Your task to perform on an android device: change keyboard looks Image 0: 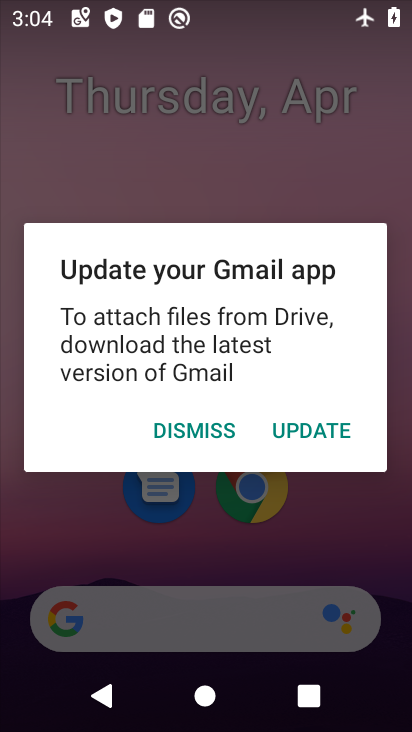
Step 0: click (222, 445)
Your task to perform on an android device: change keyboard looks Image 1: 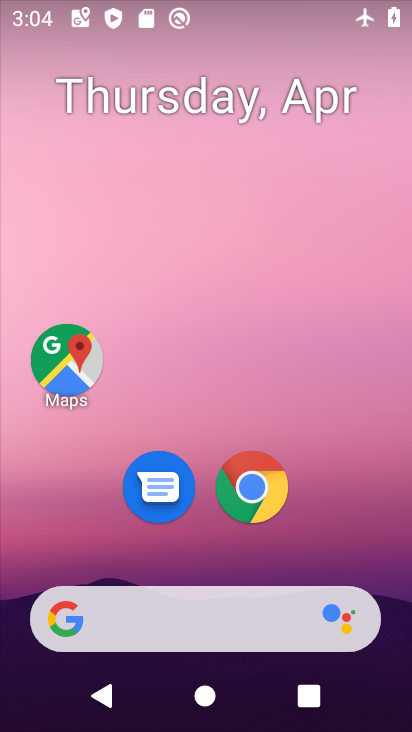
Step 1: drag from (211, 618) to (201, 96)
Your task to perform on an android device: change keyboard looks Image 2: 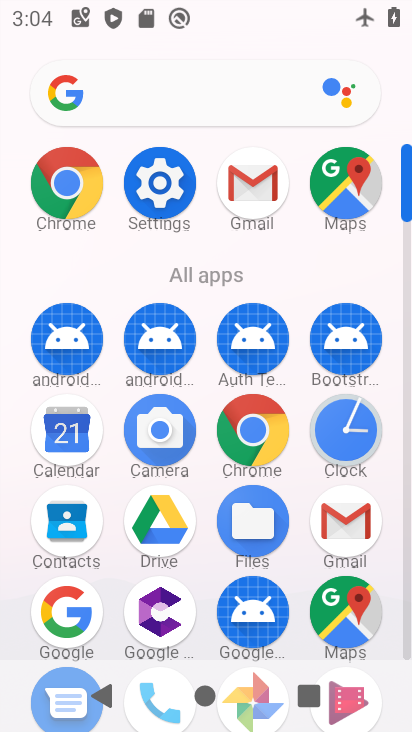
Step 2: click (162, 186)
Your task to perform on an android device: change keyboard looks Image 3: 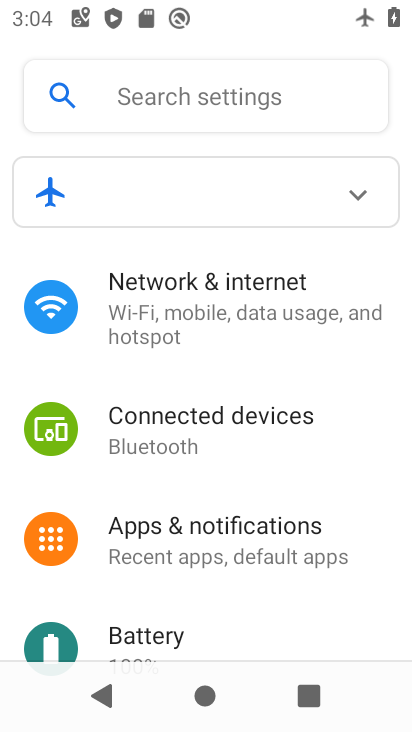
Step 3: drag from (208, 501) to (221, 4)
Your task to perform on an android device: change keyboard looks Image 4: 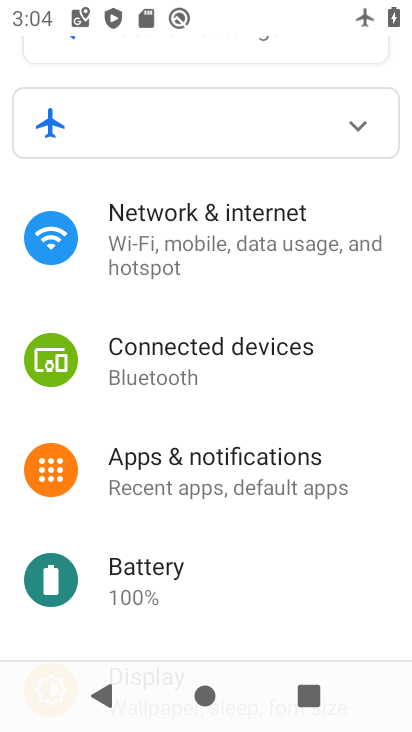
Step 4: drag from (208, 571) to (208, 354)
Your task to perform on an android device: change keyboard looks Image 5: 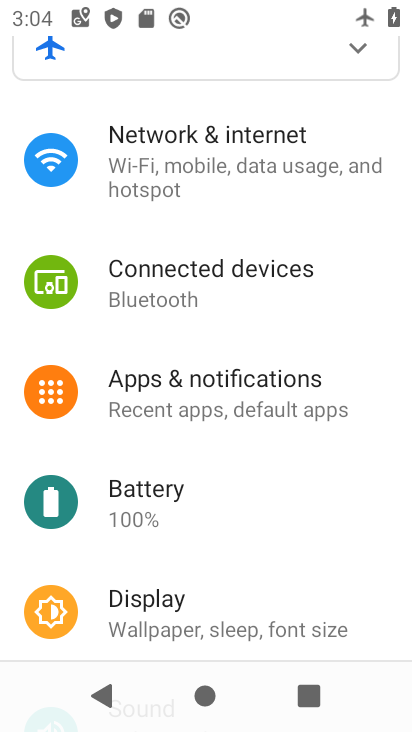
Step 5: drag from (219, 527) to (232, 263)
Your task to perform on an android device: change keyboard looks Image 6: 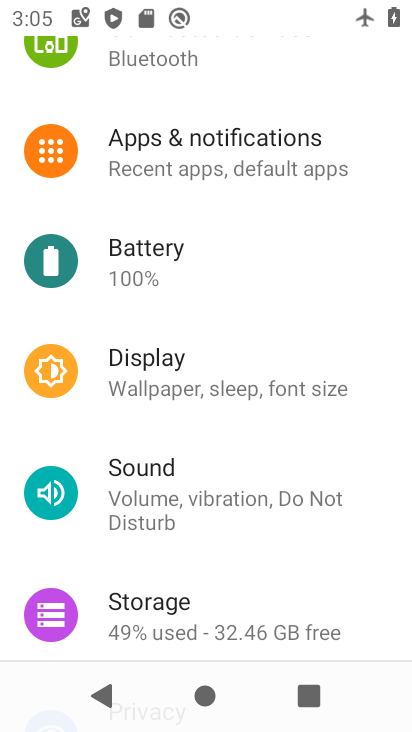
Step 6: drag from (208, 490) to (216, 169)
Your task to perform on an android device: change keyboard looks Image 7: 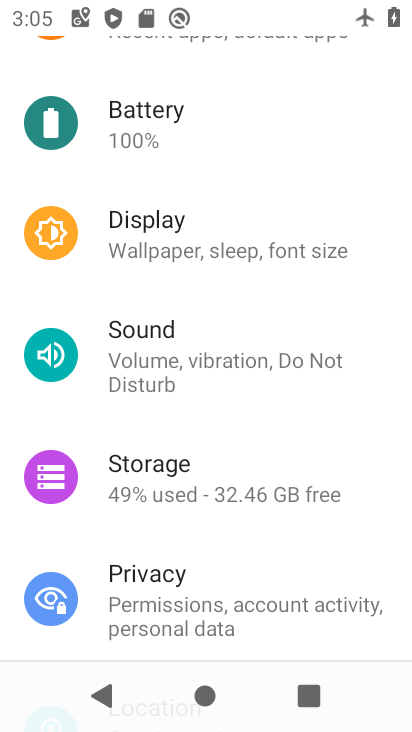
Step 7: drag from (211, 475) to (231, 228)
Your task to perform on an android device: change keyboard looks Image 8: 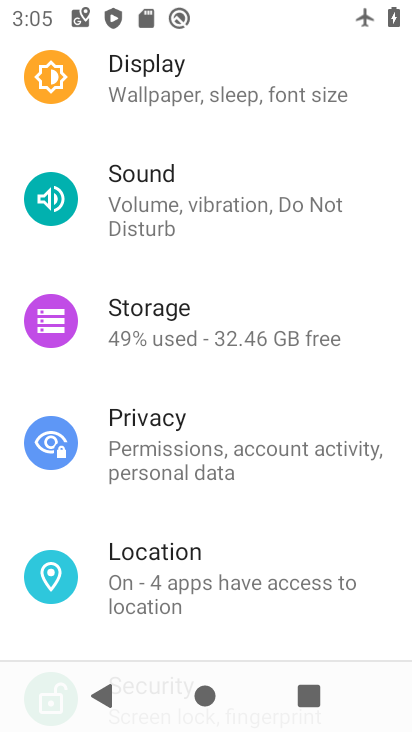
Step 8: drag from (219, 342) to (233, 234)
Your task to perform on an android device: change keyboard looks Image 9: 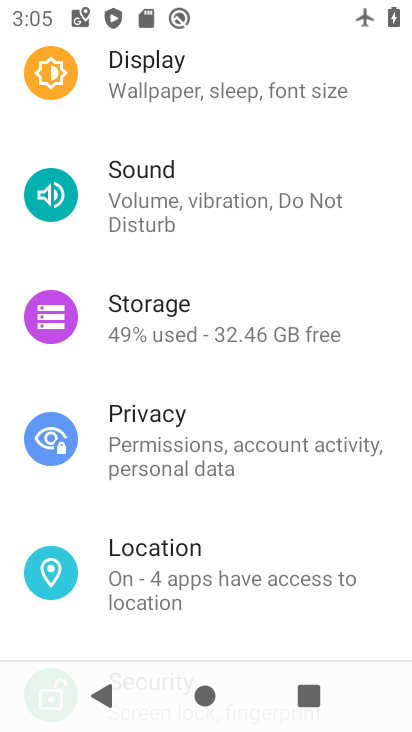
Step 9: drag from (249, 201) to (228, 407)
Your task to perform on an android device: change keyboard looks Image 10: 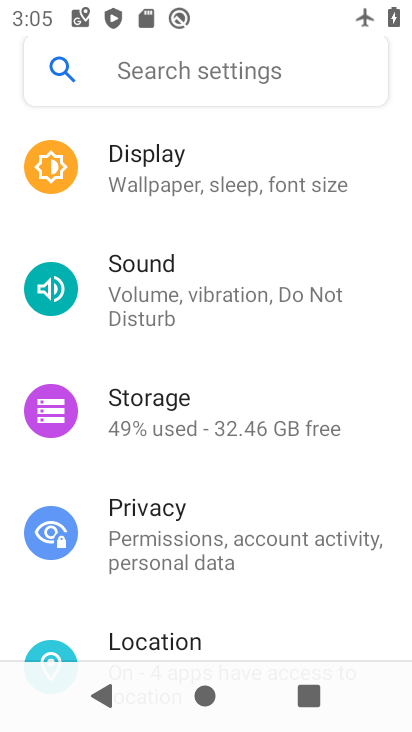
Step 10: drag from (188, 603) to (213, 246)
Your task to perform on an android device: change keyboard looks Image 11: 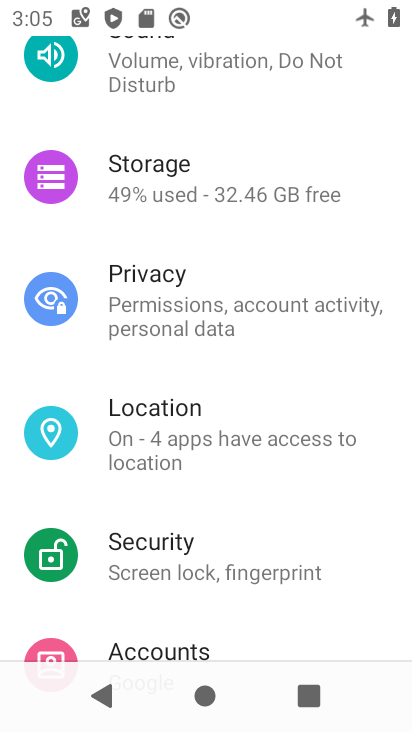
Step 11: drag from (201, 516) to (211, 242)
Your task to perform on an android device: change keyboard looks Image 12: 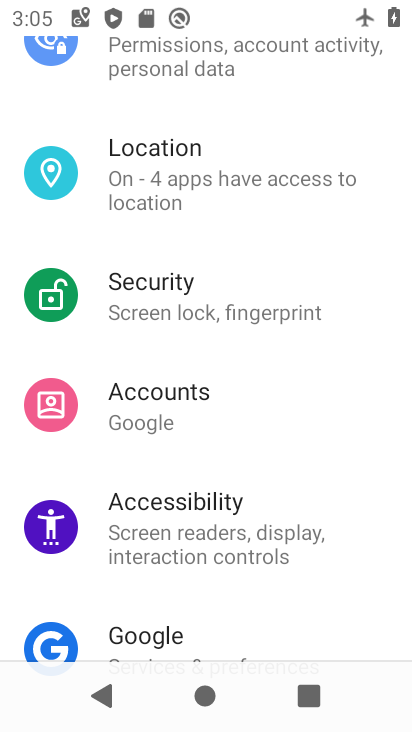
Step 12: drag from (210, 485) to (239, 179)
Your task to perform on an android device: change keyboard looks Image 13: 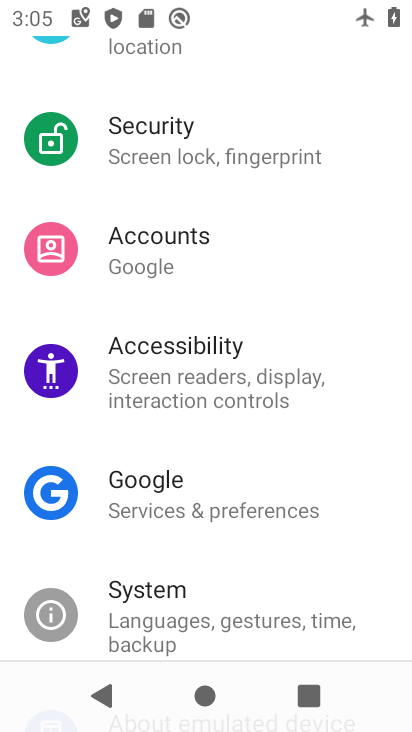
Step 13: click (204, 613)
Your task to perform on an android device: change keyboard looks Image 14: 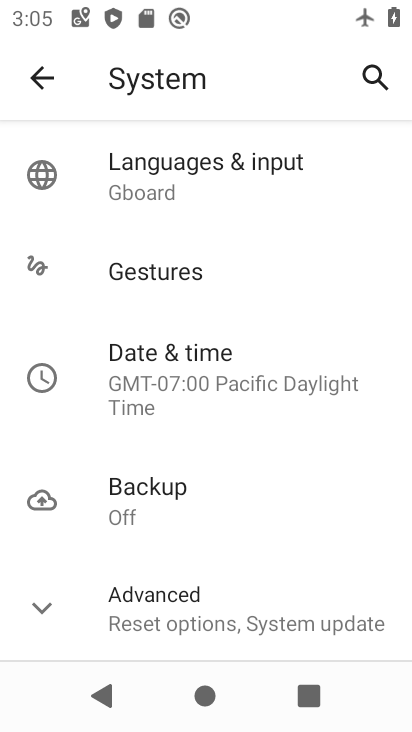
Step 14: click (214, 166)
Your task to perform on an android device: change keyboard looks Image 15: 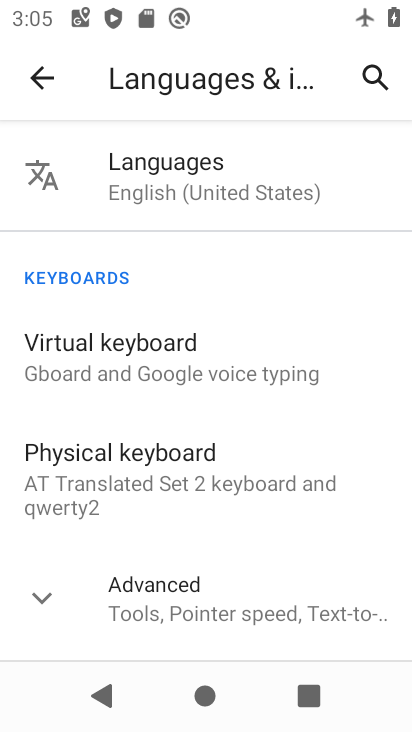
Step 15: click (176, 370)
Your task to perform on an android device: change keyboard looks Image 16: 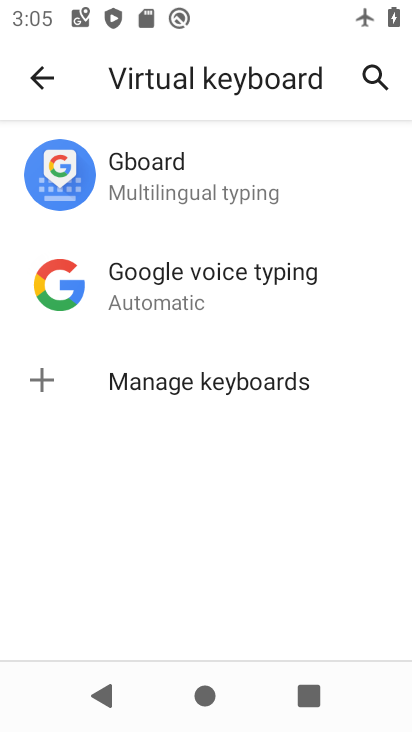
Step 16: click (187, 176)
Your task to perform on an android device: change keyboard looks Image 17: 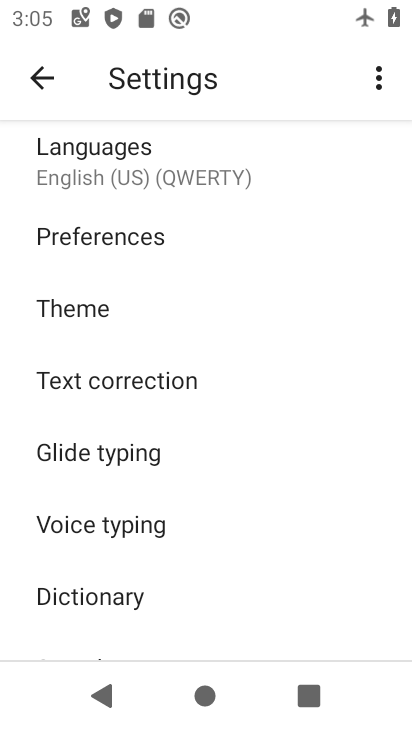
Step 17: click (109, 306)
Your task to perform on an android device: change keyboard looks Image 18: 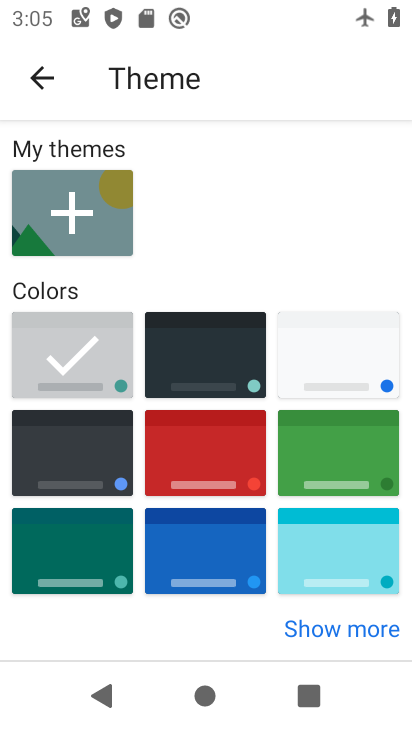
Step 18: click (167, 350)
Your task to perform on an android device: change keyboard looks Image 19: 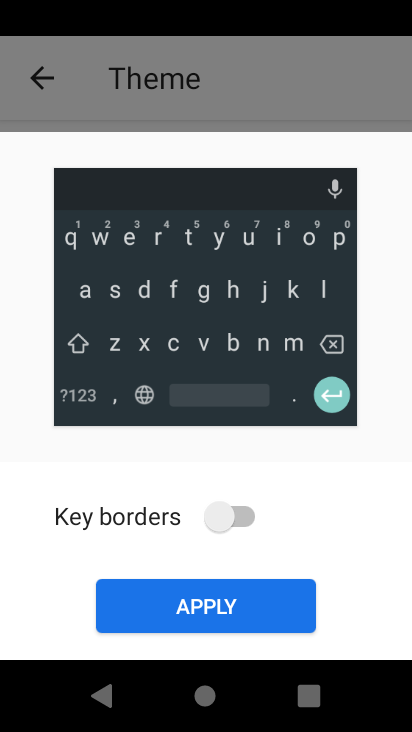
Step 19: click (228, 592)
Your task to perform on an android device: change keyboard looks Image 20: 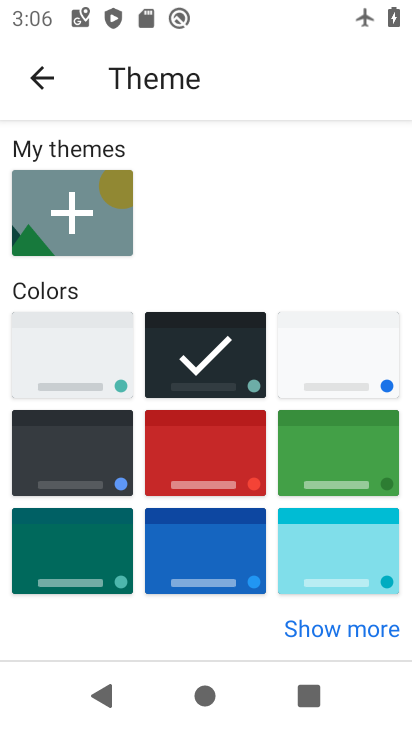
Step 20: task complete